Your task to perform on an android device: Open Google Chrome and open the bookmarks view Image 0: 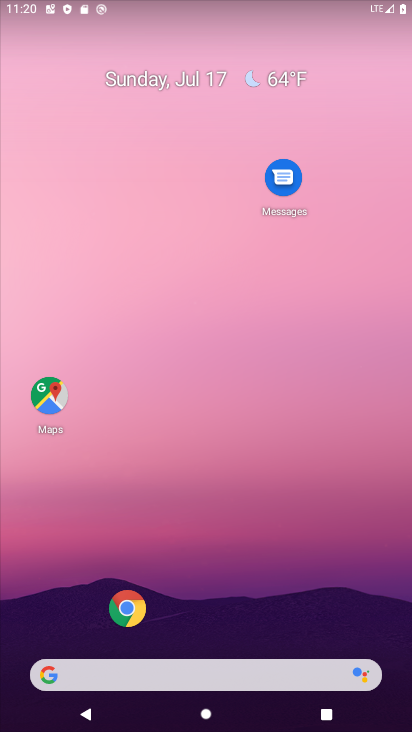
Step 0: click (135, 617)
Your task to perform on an android device: Open Google Chrome and open the bookmarks view Image 1: 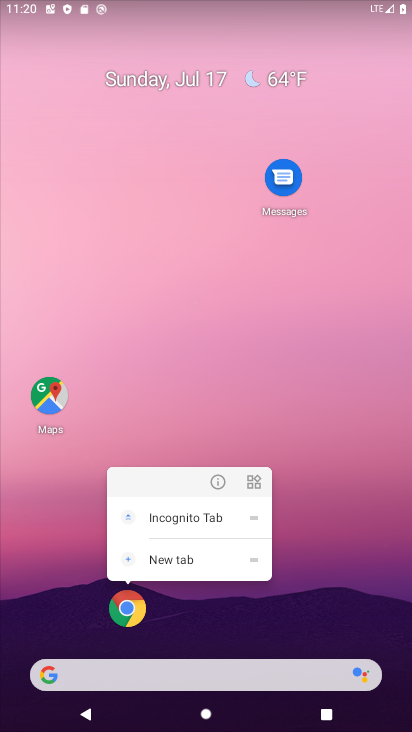
Step 1: click (135, 613)
Your task to perform on an android device: Open Google Chrome and open the bookmarks view Image 2: 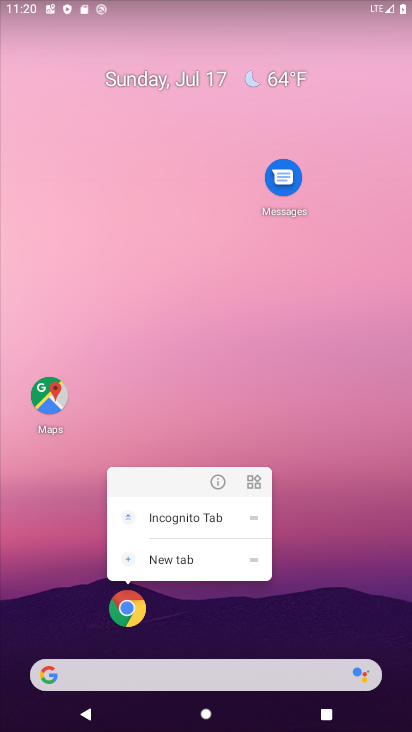
Step 2: click (129, 608)
Your task to perform on an android device: Open Google Chrome and open the bookmarks view Image 3: 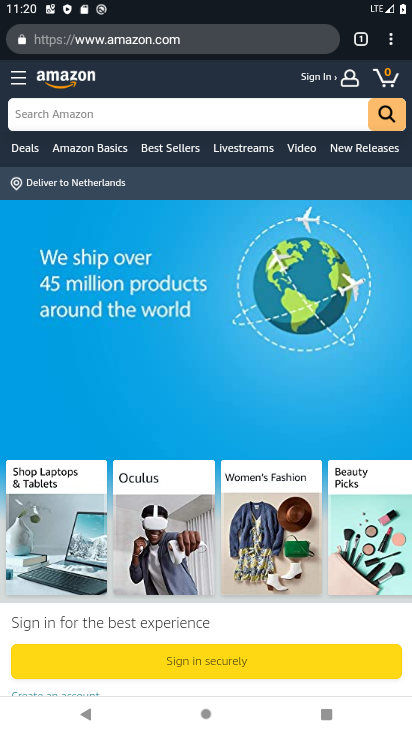
Step 3: click (387, 30)
Your task to perform on an android device: Open Google Chrome and open the bookmarks view Image 4: 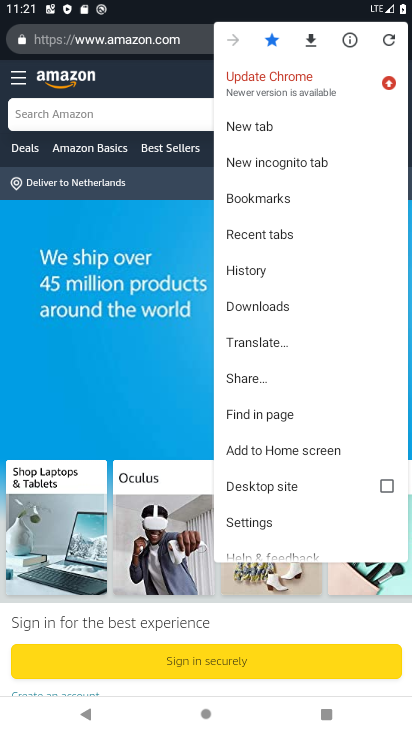
Step 4: click (284, 200)
Your task to perform on an android device: Open Google Chrome and open the bookmarks view Image 5: 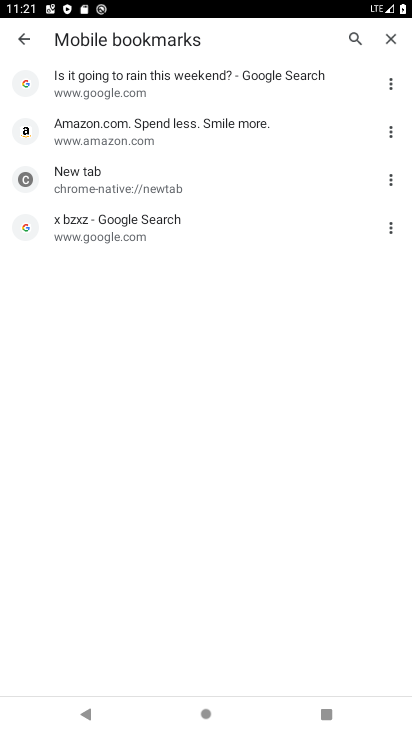
Step 5: task complete